Your task to perform on an android device: find photos in the google photos app Image 0: 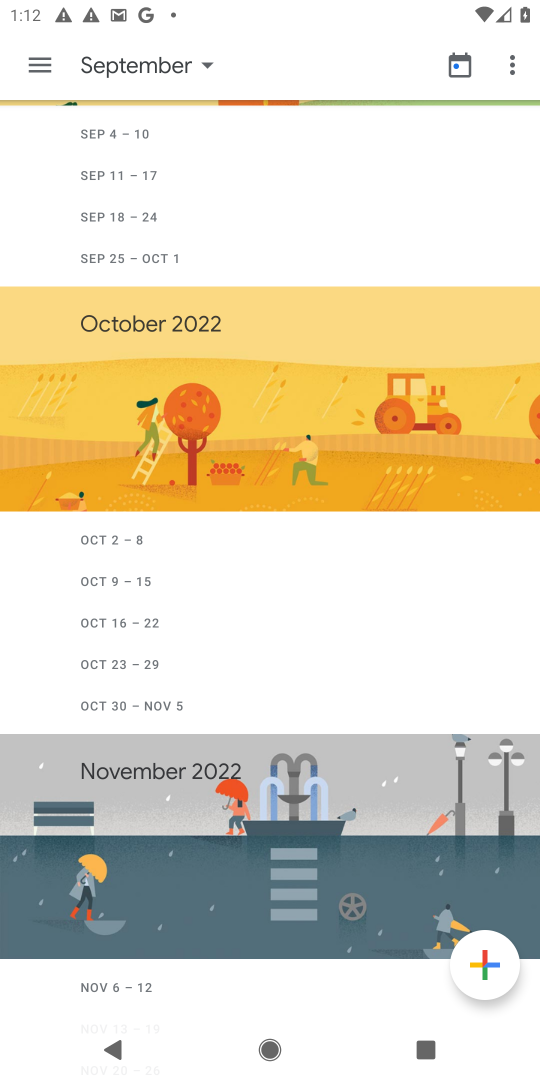
Step 0: click (37, 66)
Your task to perform on an android device: find photos in the google photos app Image 1: 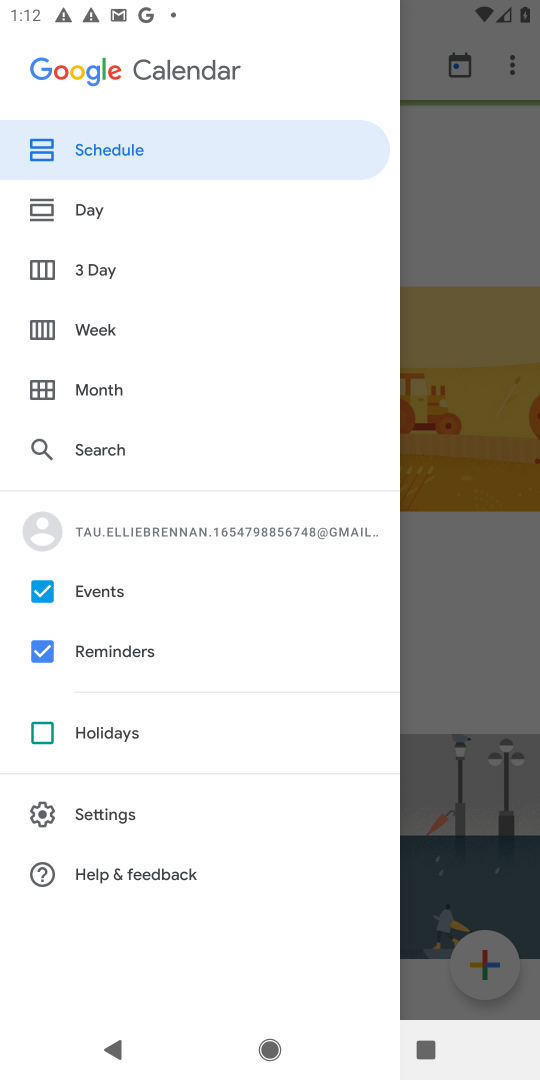
Step 1: click (484, 746)
Your task to perform on an android device: find photos in the google photos app Image 2: 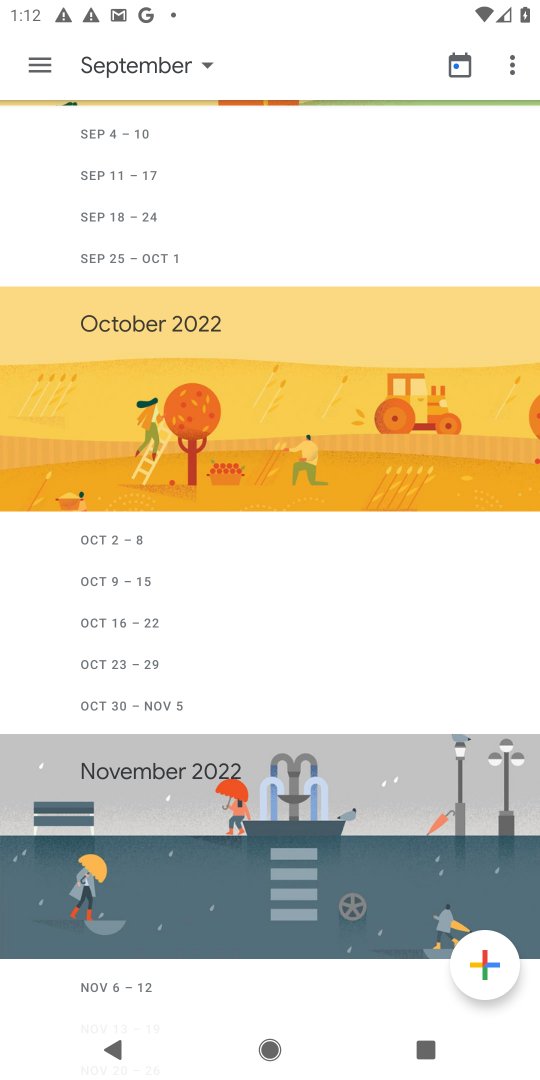
Step 2: press home button
Your task to perform on an android device: find photos in the google photos app Image 3: 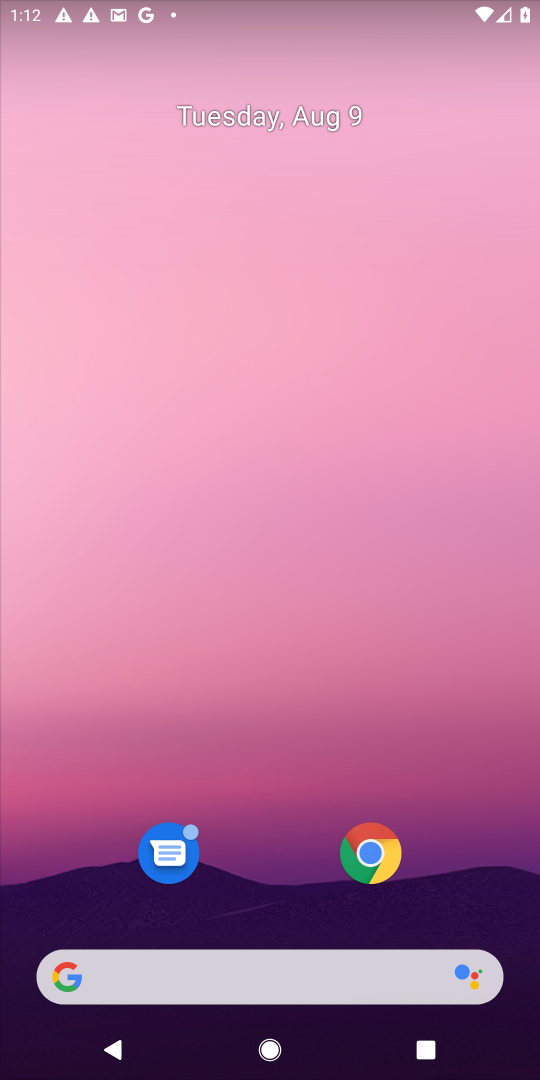
Step 3: drag from (274, 915) to (359, 45)
Your task to perform on an android device: find photos in the google photos app Image 4: 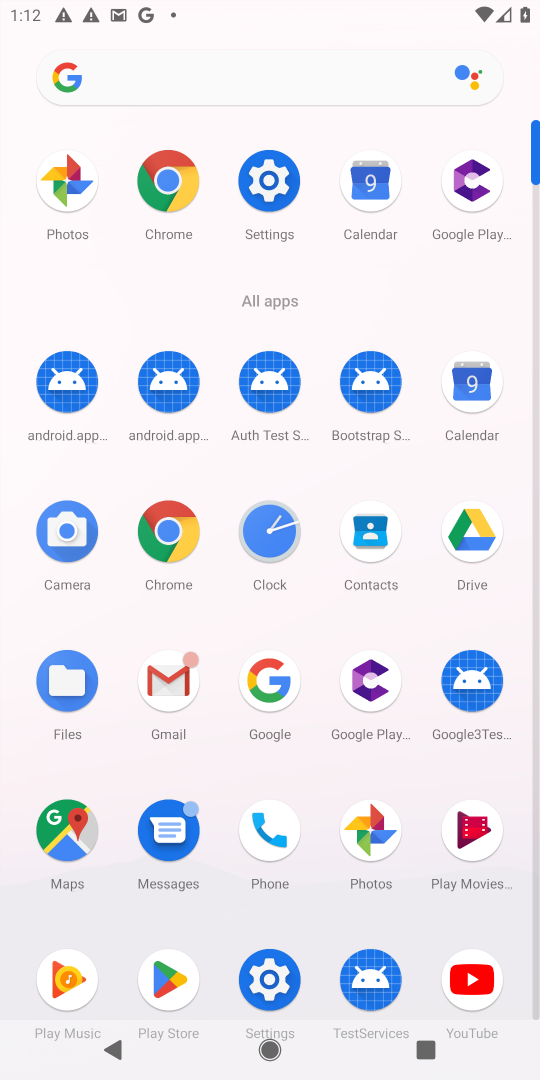
Step 4: click (365, 818)
Your task to perform on an android device: find photos in the google photos app Image 5: 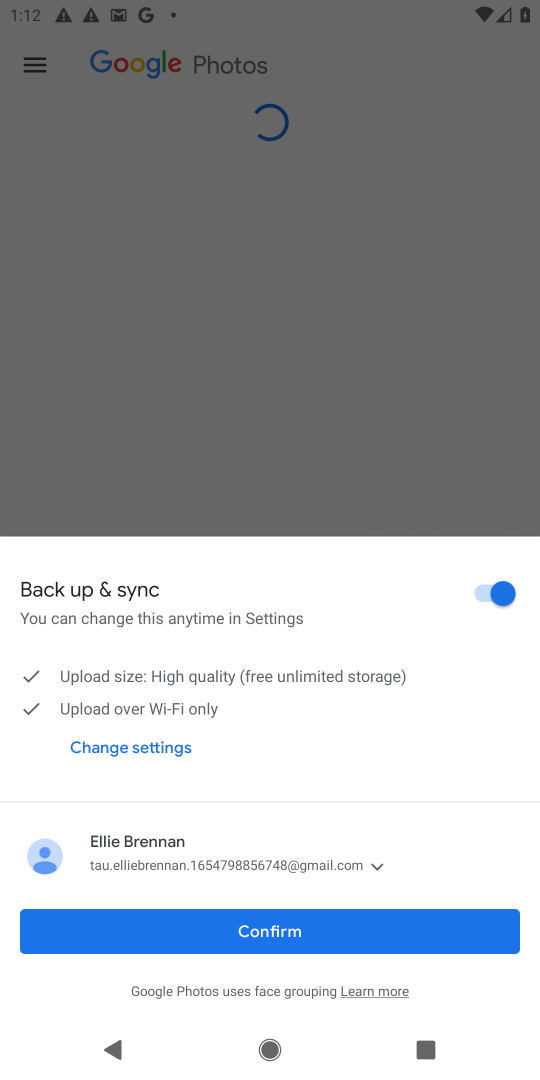
Step 5: click (288, 924)
Your task to perform on an android device: find photos in the google photos app Image 6: 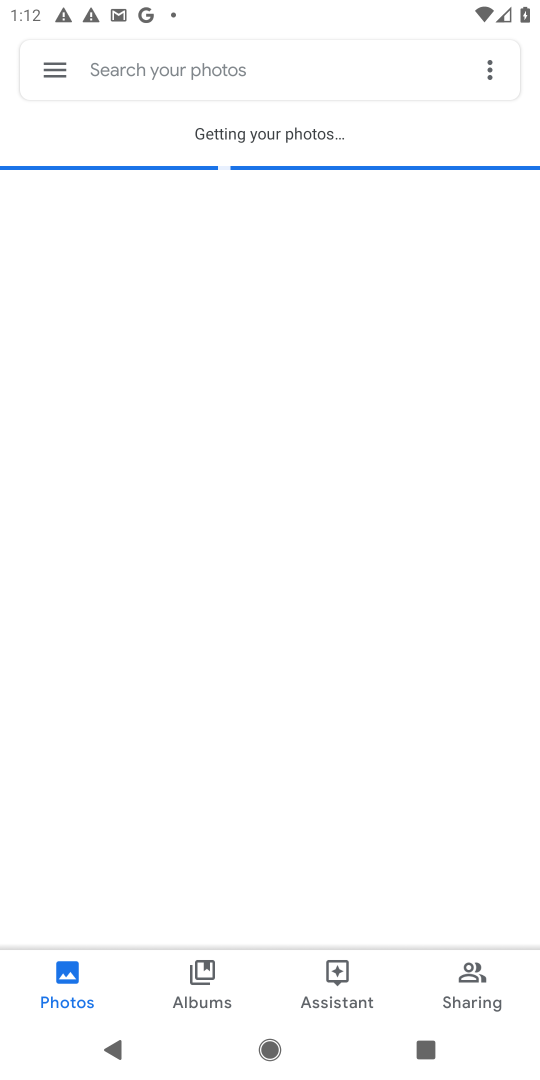
Step 6: task complete